Your task to perform on an android device: Check out the best rated books on Goodreads. Image 0: 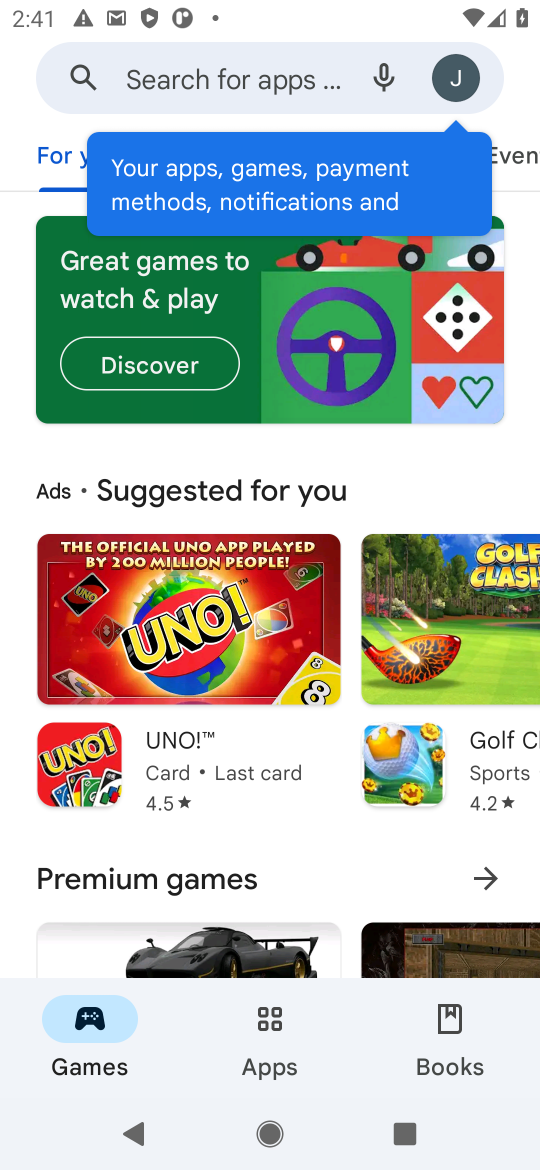
Step 0: press home button
Your task to perform on an android device: Check out the best rated books on Goodreads. Image 1: 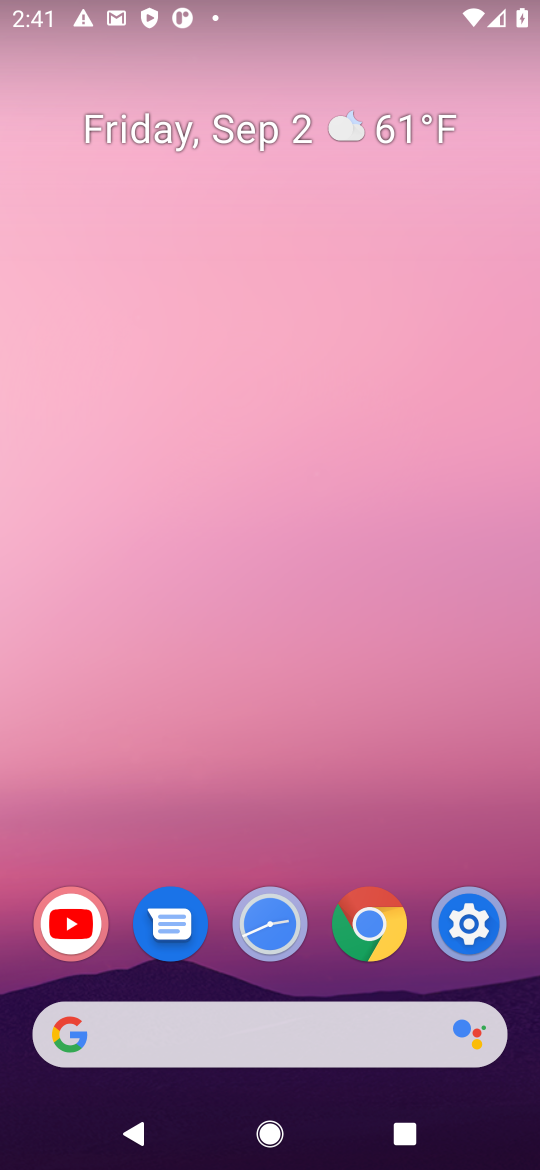
Step 1: click (392, 1025)
Your task to perform on an android device: Check out the best rated books on Goodreads. Image 2: 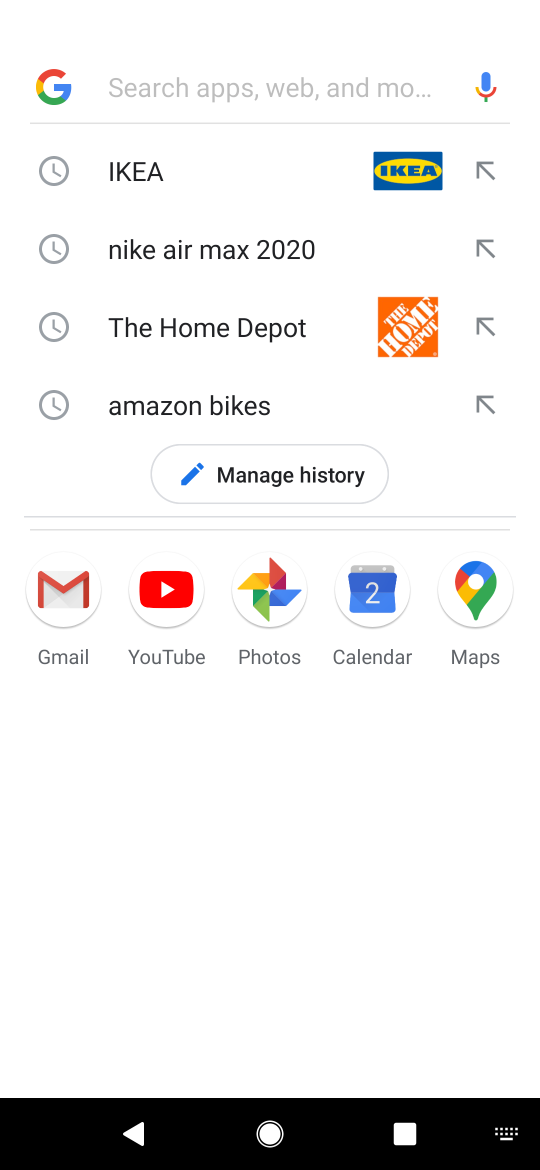
Step 2: press enter
Your task to perform on an android device: Check out the best rated books on Goodreads. Image 3: 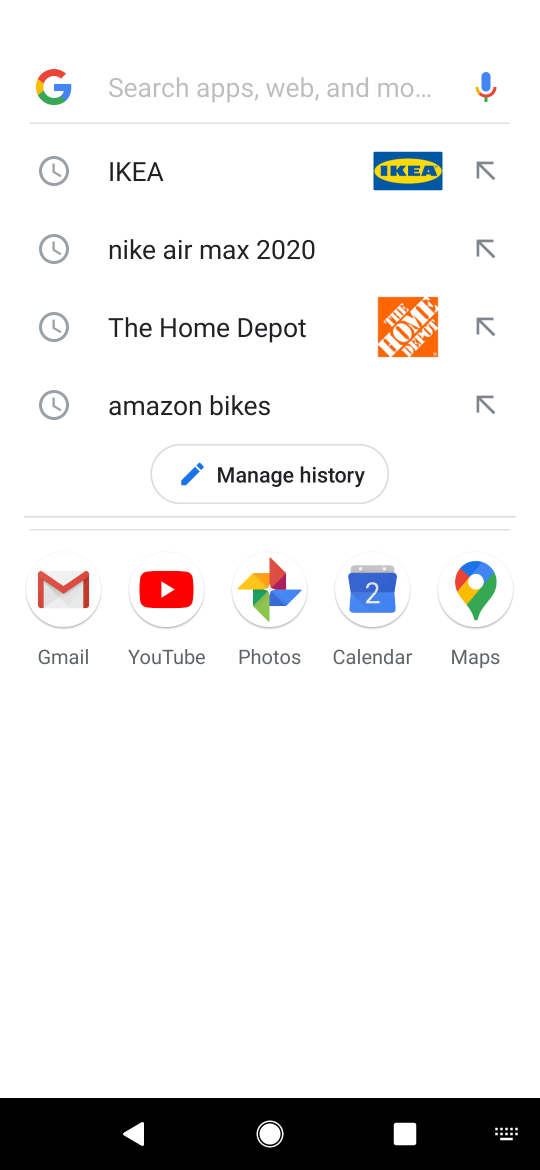
Step 3: type "goodreads"
Your task to perform on an android device: Check out the best rated books on Goodreads. Image 4: 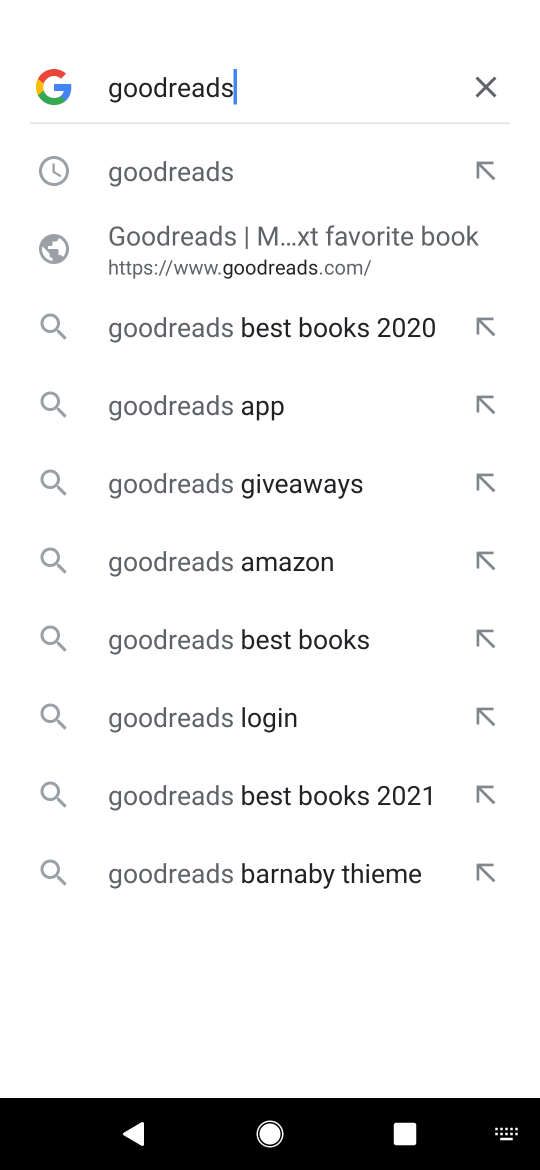
Step 4: click (214, 163)
Your task to perform on an android device: Check out the best rated books on Goodreads. Image 5: 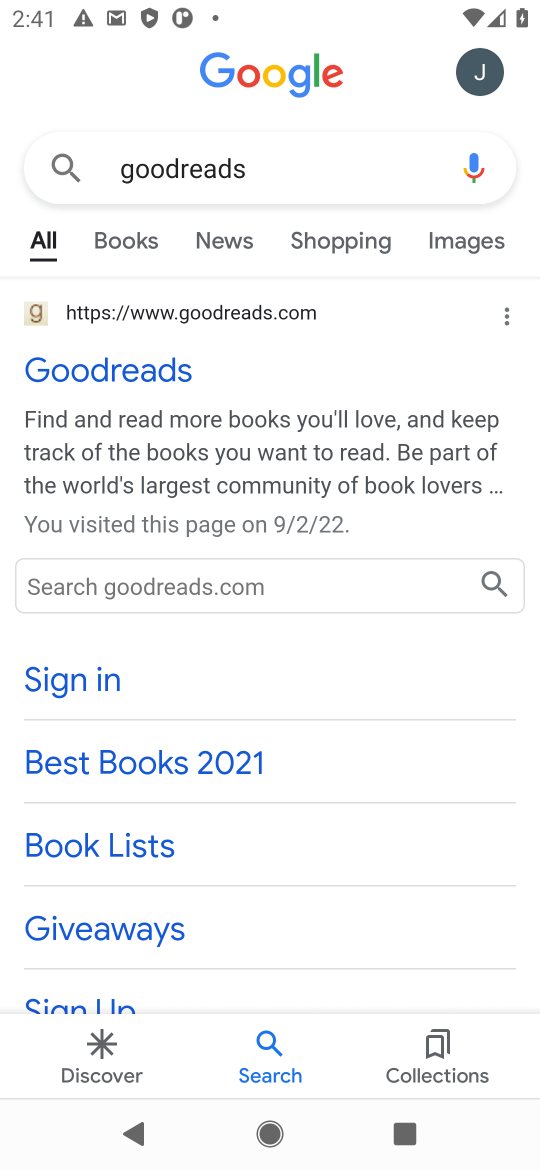
Step 5: click (178, 374)
Your task to perform on an android device: Check out the best rated books on Goodreads. Image 6: 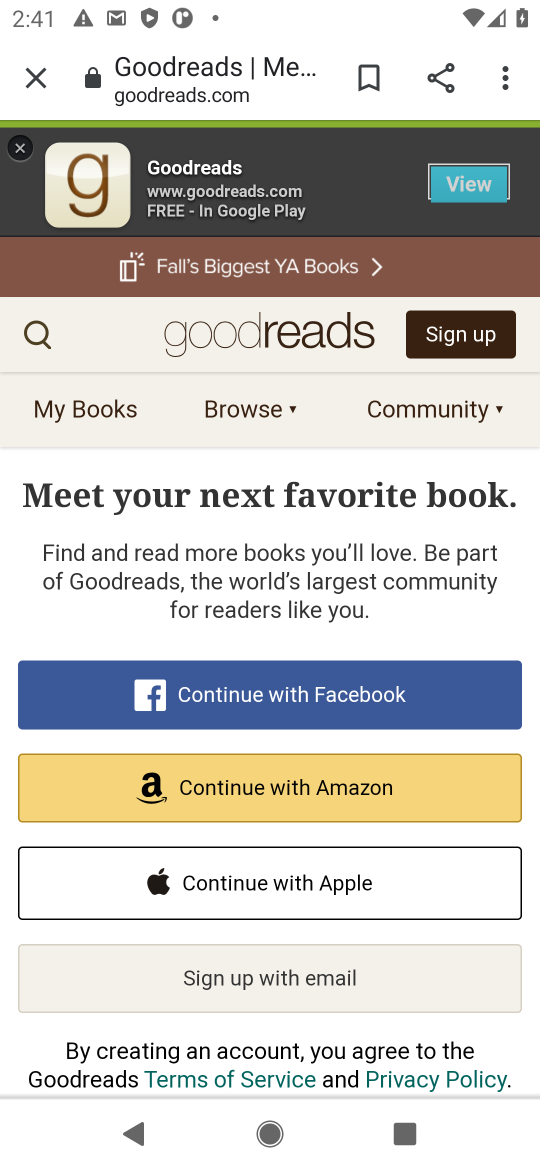
Step 6: click (77, 338)
Your task to perform on an android device: Check out the best rated books on Goodreads. Image 7: 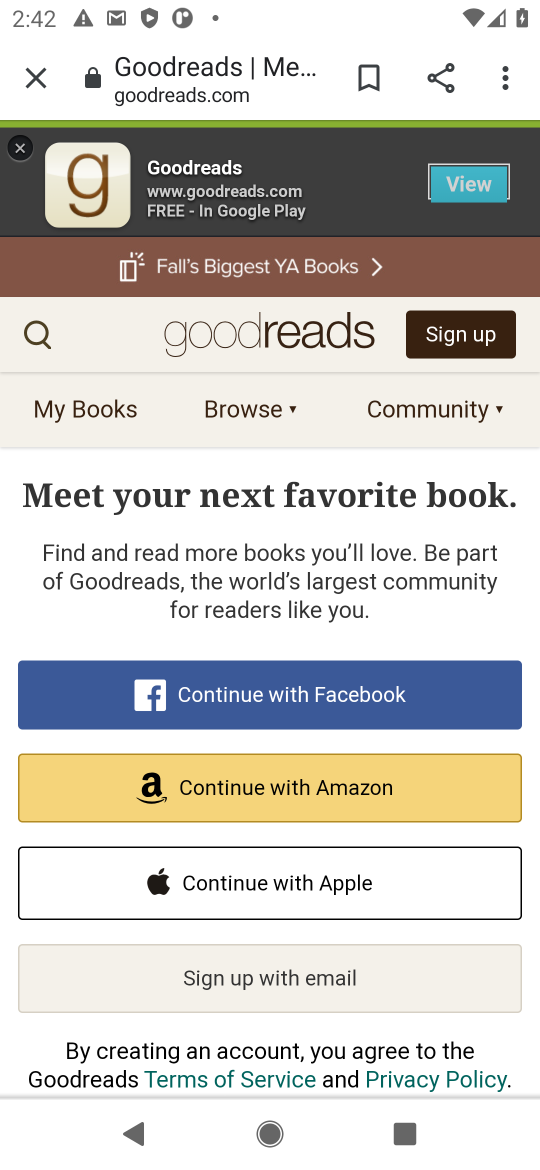
Step 7: click (35, 329)
Your task to perform on an android device: Check out the best rated books on Goodreads. Image 8: 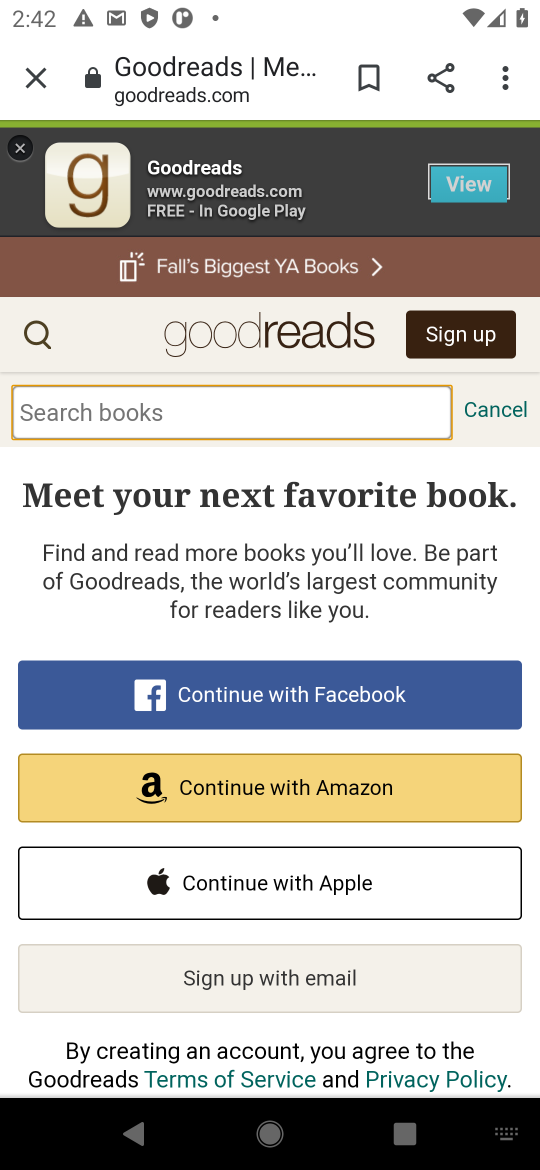
Step 8: type "best rated books"
Your task to perform on an android device: Check out the best rated books on Goodreads. Image 9: 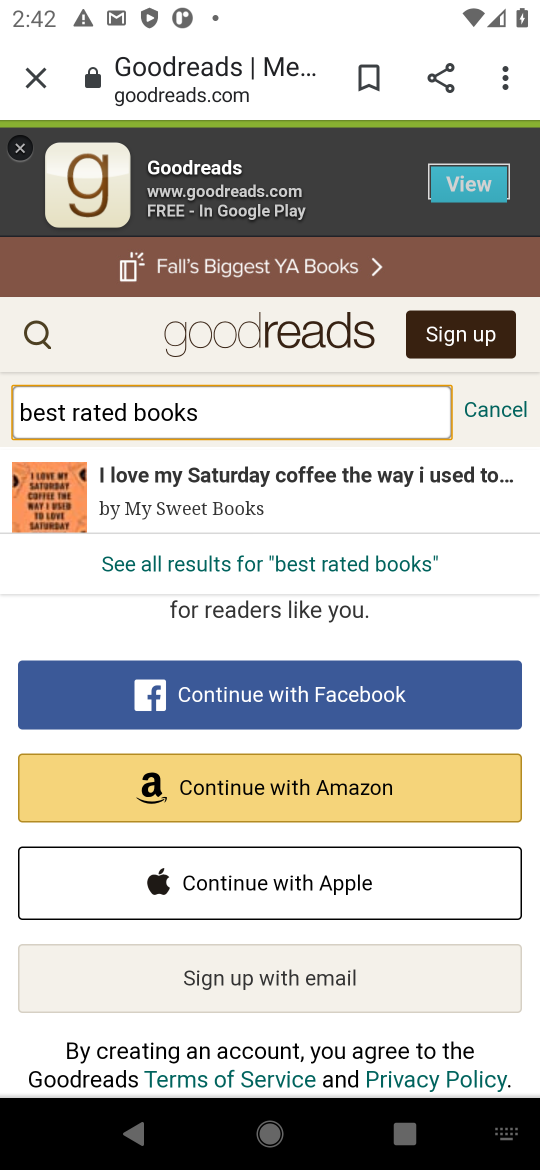
Step 9: task complete